Your task to perform on an android device: toggle translation in the chrome app Image 0: 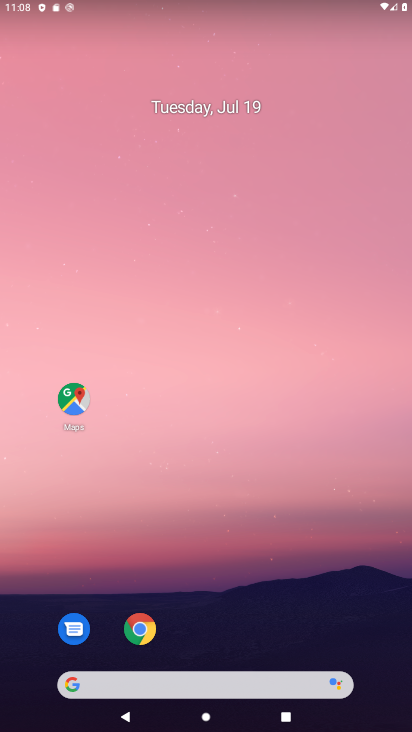
Step 0: drag from (283, 627) to (314, 98)
Your task to perform on an android device: toggle translation in the chrome app Image 1: 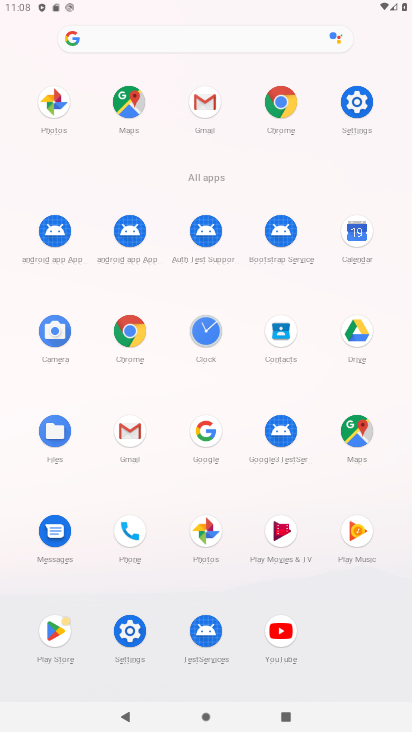
Step 1: click (282, 92)
Your task to perform on an android device: toggle translation in the chrome app Image 2: 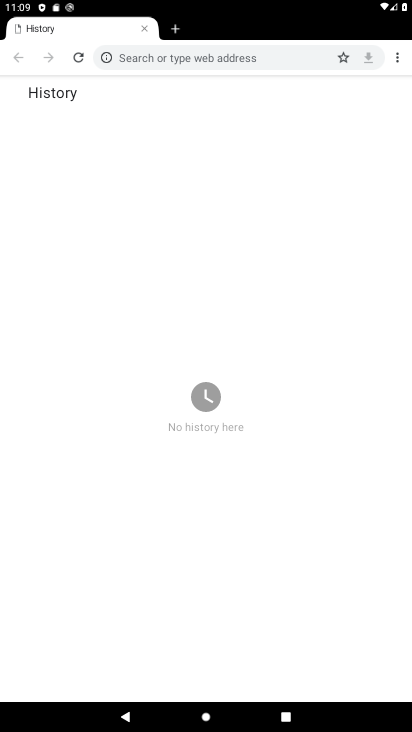
Step 2: drag from (394, 54) to (312, 266)
Your task to perform on an android device: toggle translation in the chrome app Image 3: 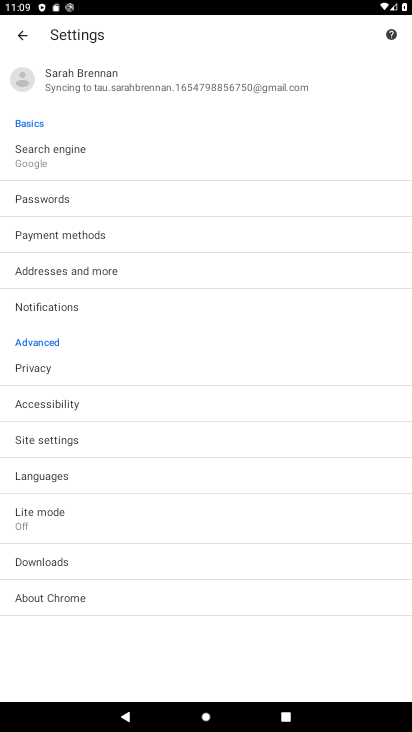
Step 3: click (50, 483)
Your task to perform on an android device: toggle translation in the chrome app Image 4: 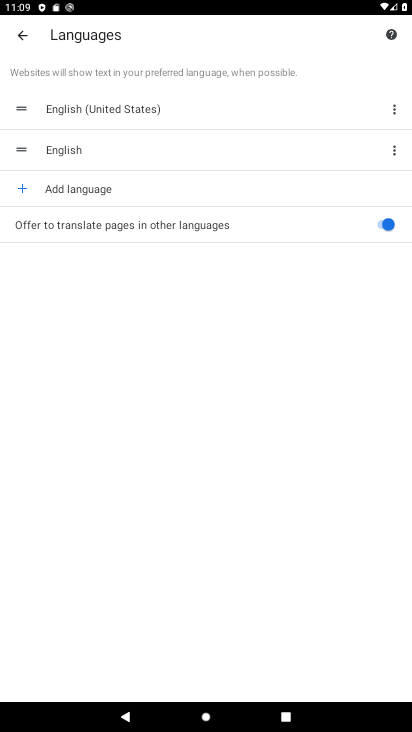
Step 4: click (397, 218)
Your task to perform on an android device: toggle translation in the chrome app Image 5: 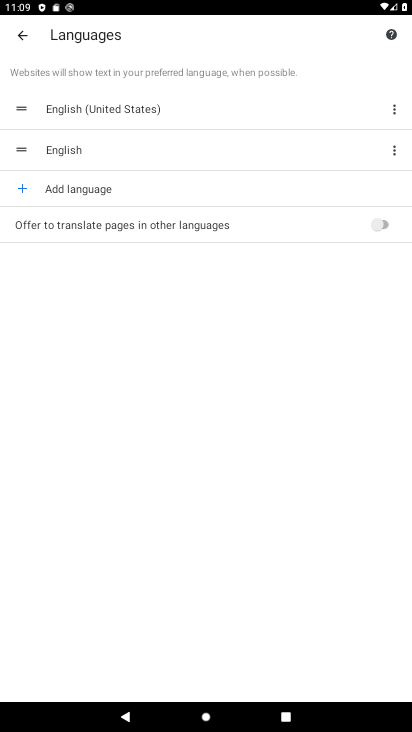
Step 5: task complete